Your task to perform on an android device: set default search engine in the chrome app Image 0: 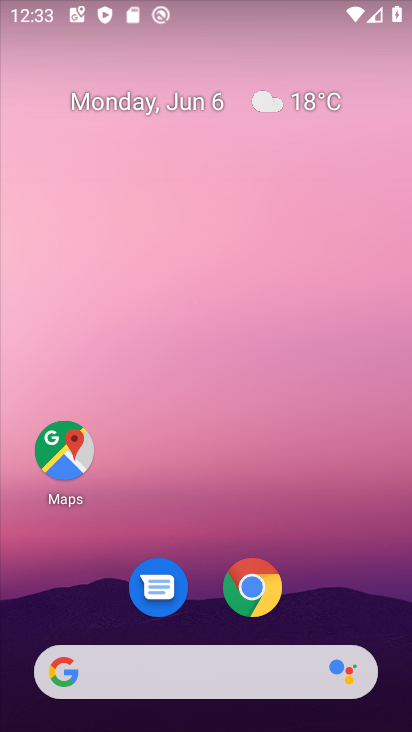
Step 0: drag from (327, 586) to (304, 184)
Your task to perform on an android device: set default search engine in the chrome app Image 1: 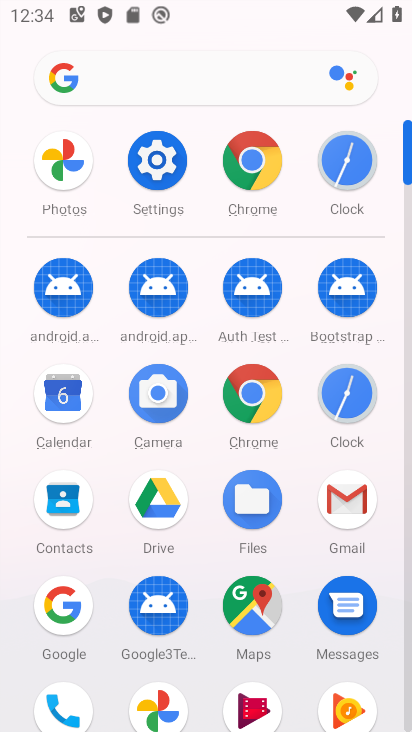
Step 1: click (247, 396)
Your task to perform on an android device: set default search engine in the chrome app Image 2: 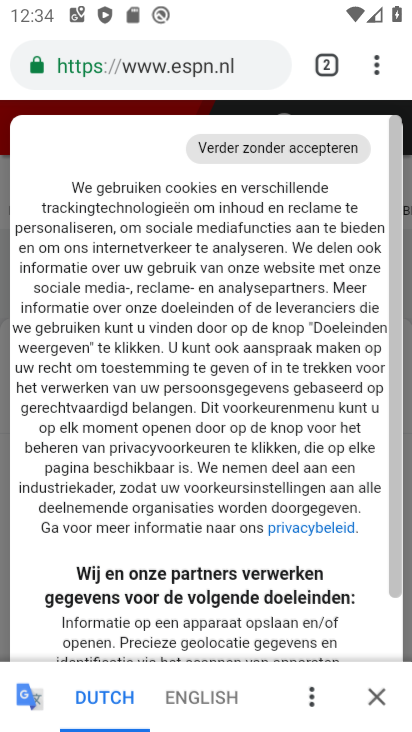
Step 2: drag from (368, 66) to (176, 643)
Your task to perform on an android device: set default search engine in the chrome app Image 3: 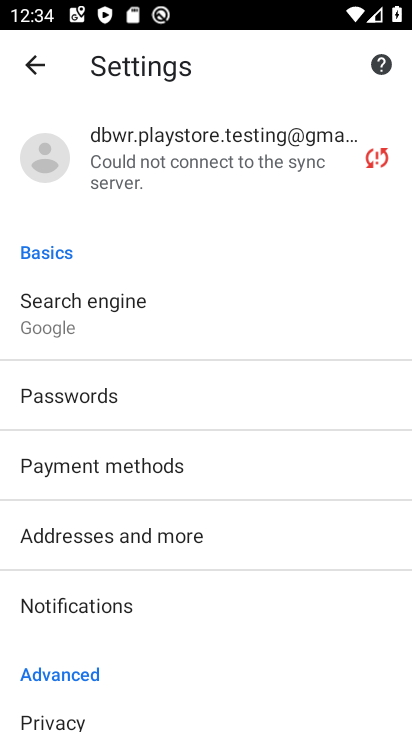
Step 3: click (111, 323)
Your task to perform on an android device: set default search engine in the chrome app Image 4: 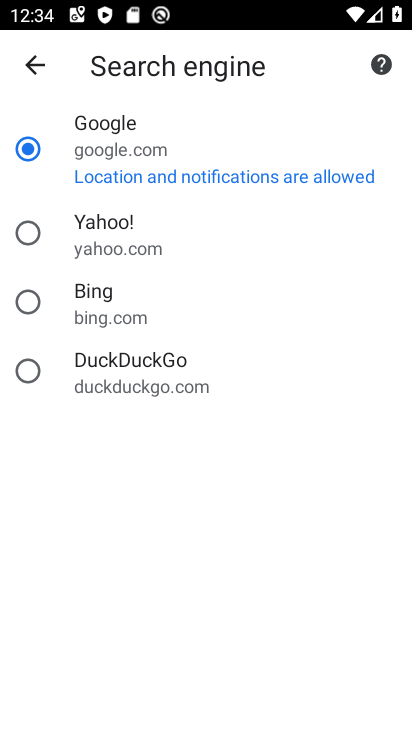
Step 4: click (112, 233)
Your task to perform on an android device: set default search engine in the chrome app Image 5: 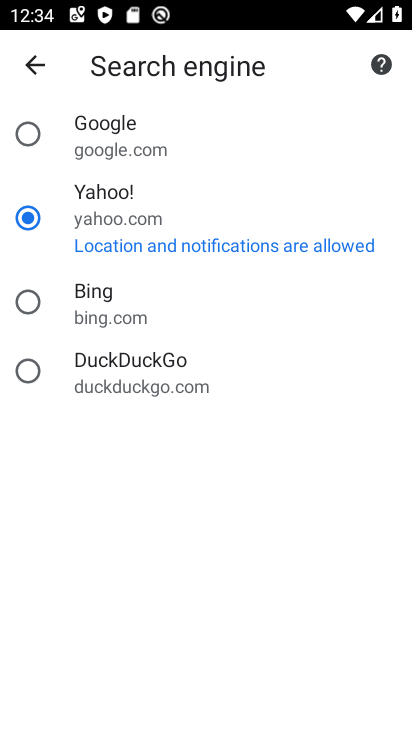
Step 5: task complete